Your task to perform on an android device: Open eBay Image 0: 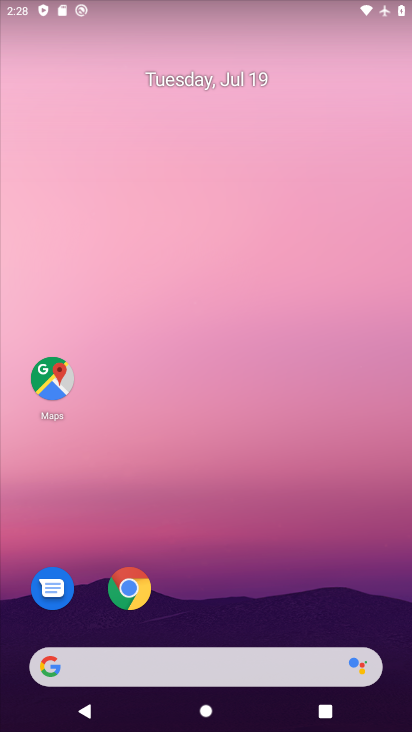
Step 0: click (46, 663)
Your task to perform on an android device: Open eBay Image 1: 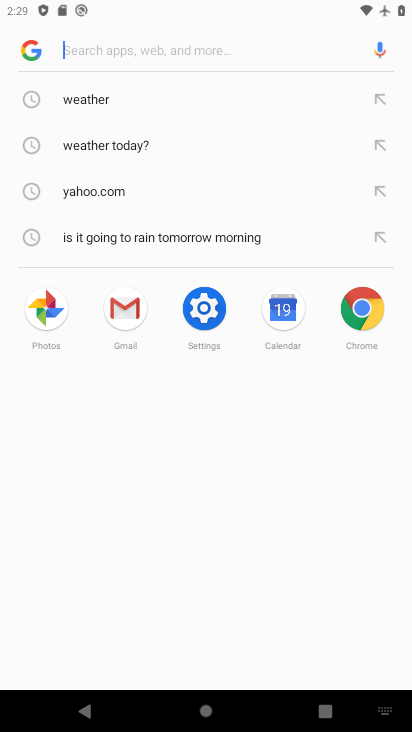
Step 1: type "eBay"
Your task to perform on an android device: Open eBay Image 2: 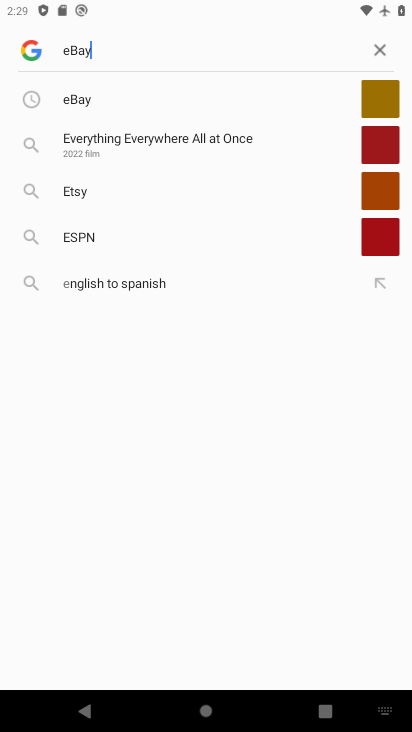
Step 2: press home button
Your task to perform on an android device: Open eBay Image 3: 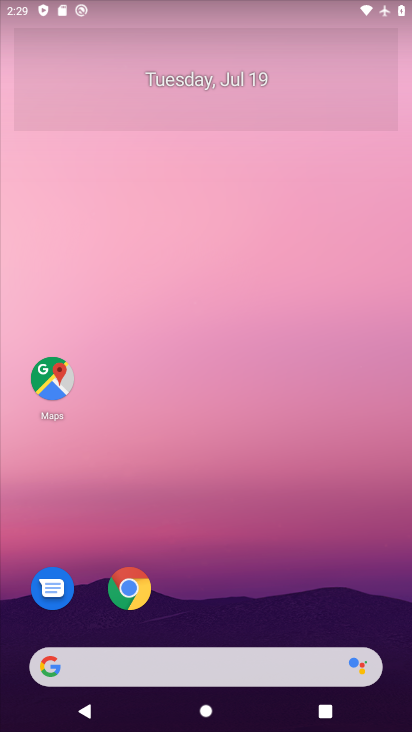
Step 3: click (60, 670)
Your task to perform on an android device: Open eBay Image 4: 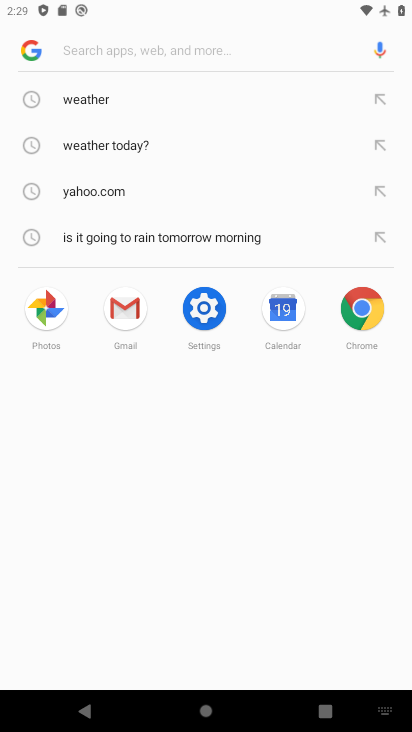
Step 4: type "Open eBay"
Your task to perform on an android device: Open eBay Image 5: 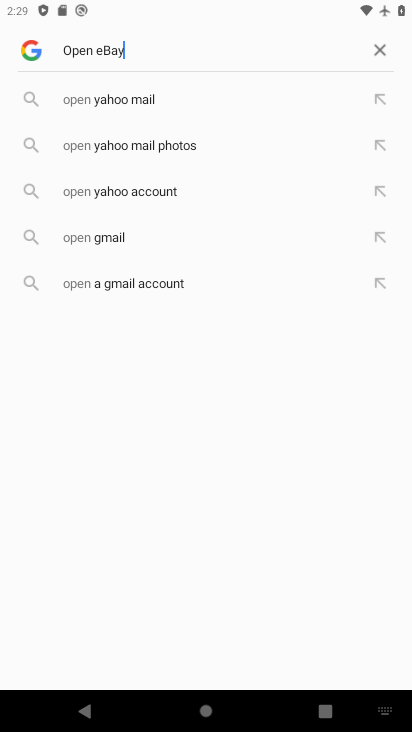
Step 5: press enter
Your task to perform on an android device: Open eBay Image 6: 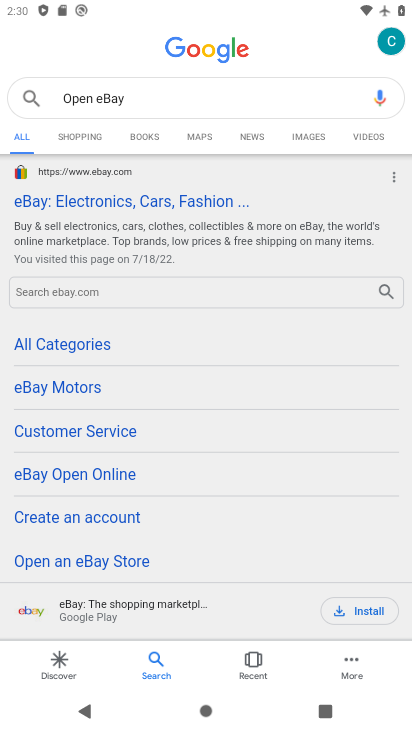
Step 6: click (171, 203)
Your task to perform on an android device: Open eBay Image 7: 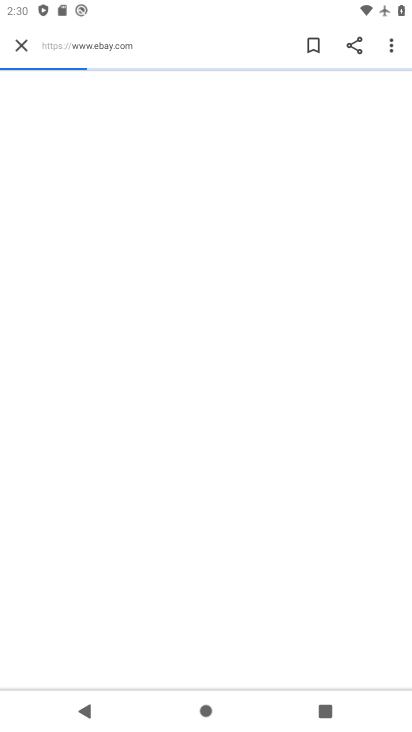
Step 7: click (171, 203)
Your task to perform on an android device: Open eBay Image 8: 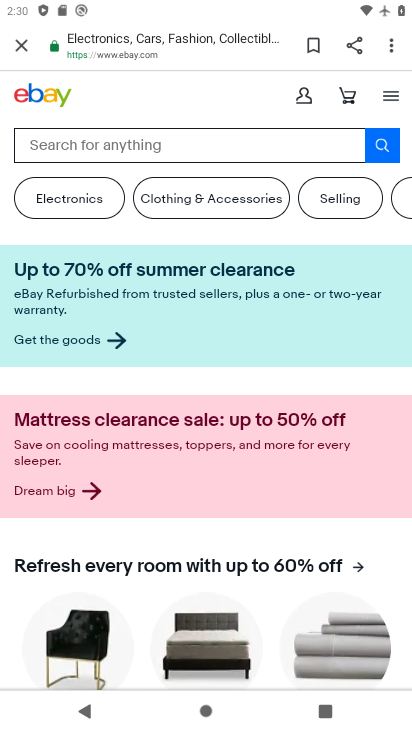
Step 8: task complete